Your task to perform on an android device: Open Google Chrome and open the bookmarks view Image 0: 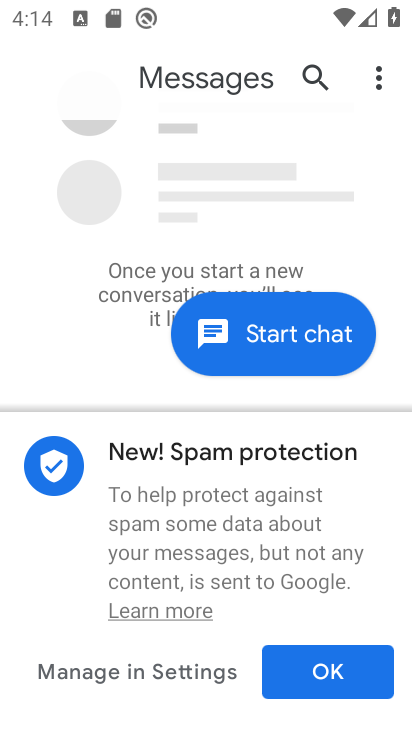
Step 0: press home button
Your task to perform on an android device: Open Google Chrome and open the bookmarks view Image 1: 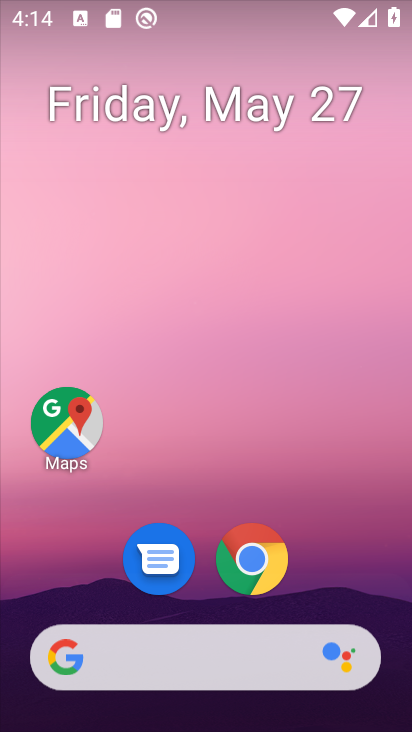
Step 1: drag from (301, 595) to (299, 46)
Your task to perform on an android device: Open Google Chrome and open the bookmarks view Image 2: 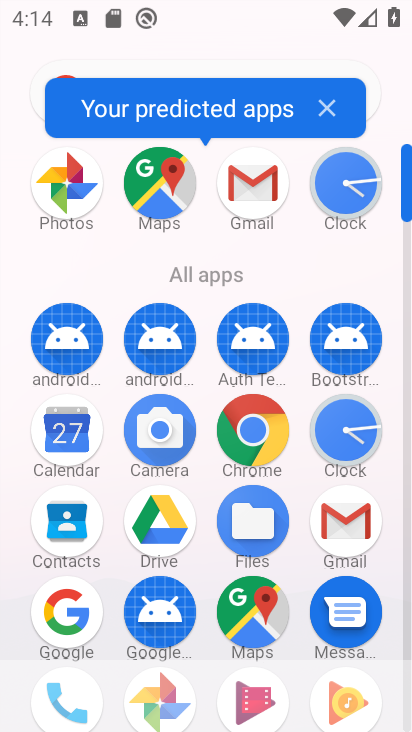
Step 2: click (273, 442)
Your task to perform on an android device: Open Google Chrome and open the bookmarks view Image 3: 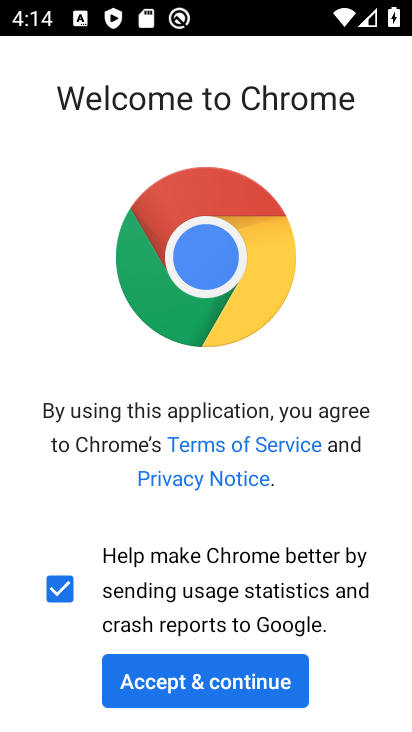
Step 3: click (243, 687)
Your task to perform on an android device: Open Google Chrome and open the bookmarks view Image 4: 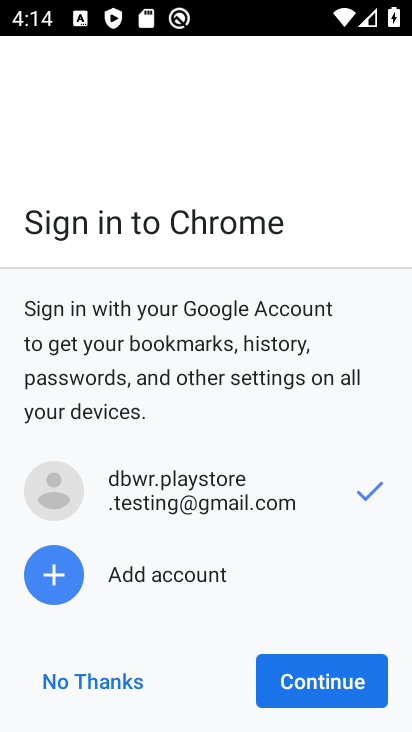
Step 4: click (123, 686)
Your task to perform on an android device: Open Google Chrome and open the bookmarks view Image 5: 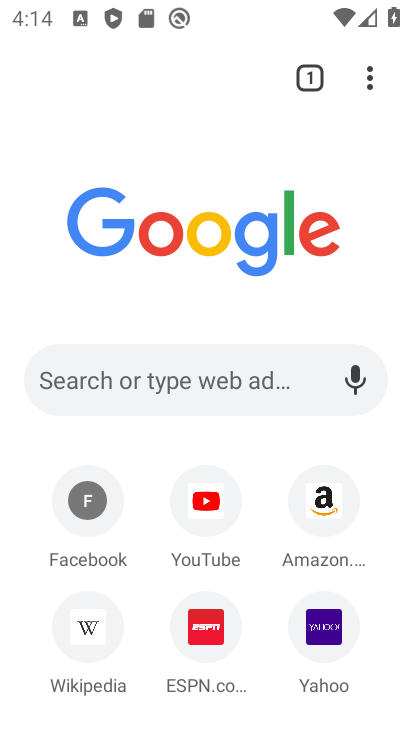
Step 5: drag from (363, 71) to (248, 189)
Your task to perform on an android device: Open Google Chrome and open the bookmarks view Image 6: 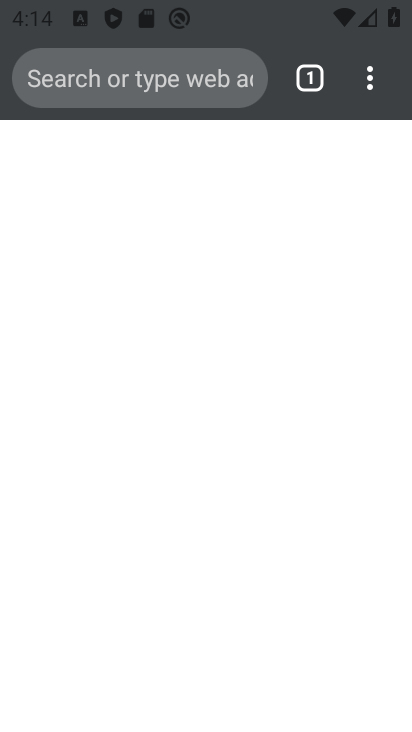
Step 6: click (226, 275)
Your task to perform on an android device: Open Google Chrome and open the bookmarks view Image 7: 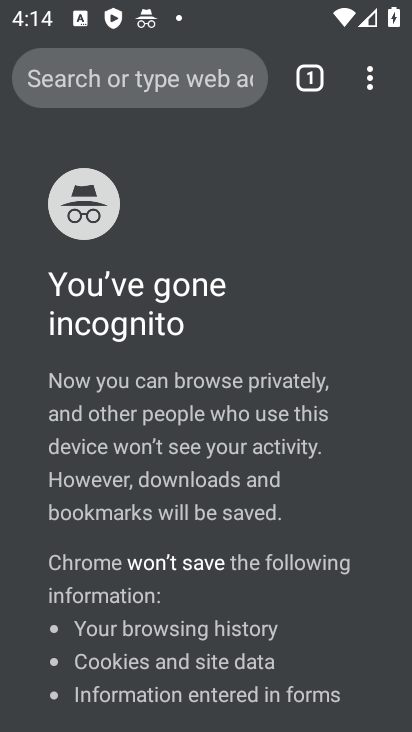
Step 7: task complete